Your task to perform on an android device: find photos in the google photos app Image 0: 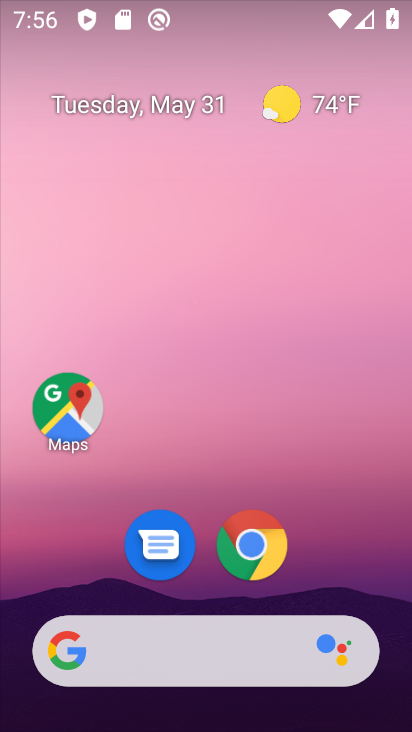
Step 0: drag from (293, 285) to (241, 13)
Your task to perform on an android device: find photos in the google photos app Image 1: 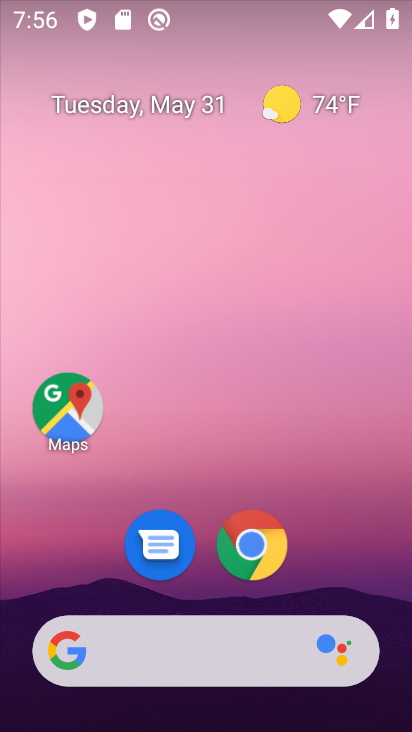
Step 1: drag from (337, 491) to (235, 35)
Your task to perform on an android device: find photos in the google photos app Image 2: 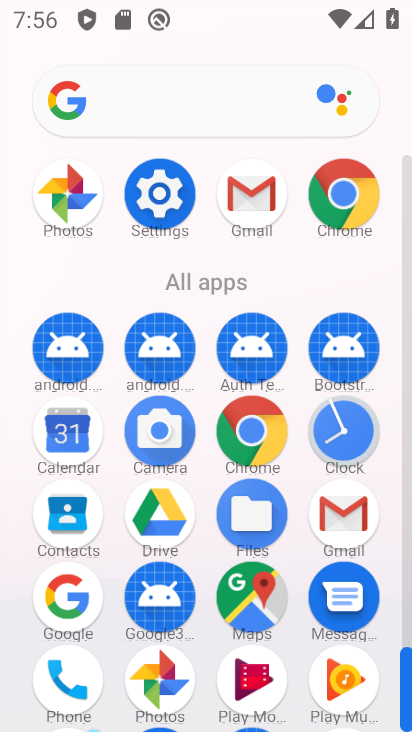
Step 2: drag from (16, 588) to (17, 324)
Your task to perform on an android device: find photos in the google photos app Image 3: 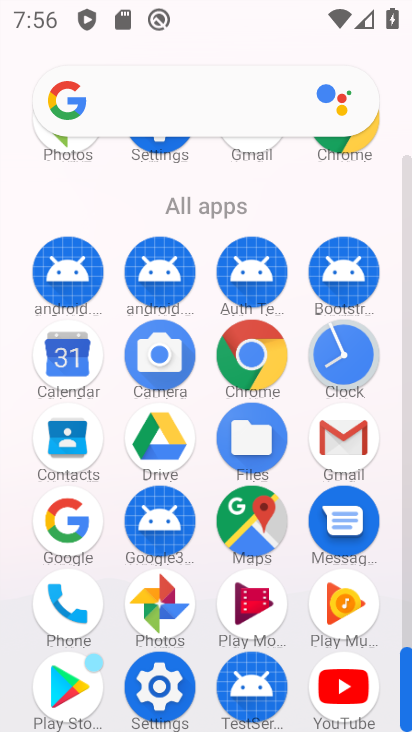
Step 3: click (161, 599)
Your task to perform on an android device: find photos in the google photos app Image 4: 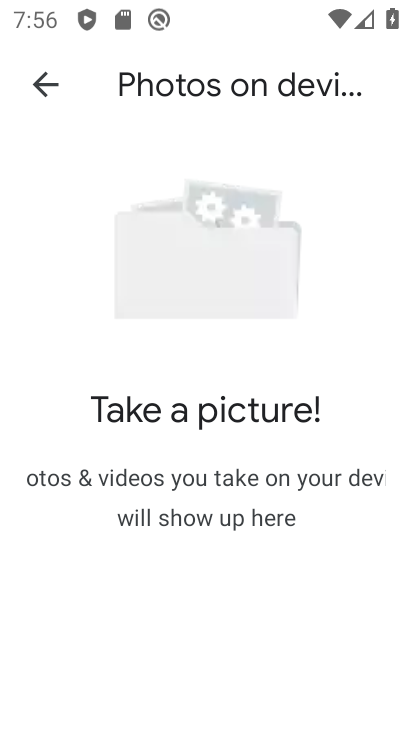
Step 4: click (49, 78)
Your task to perform on an android device: find photos in the google photos app Image 5: 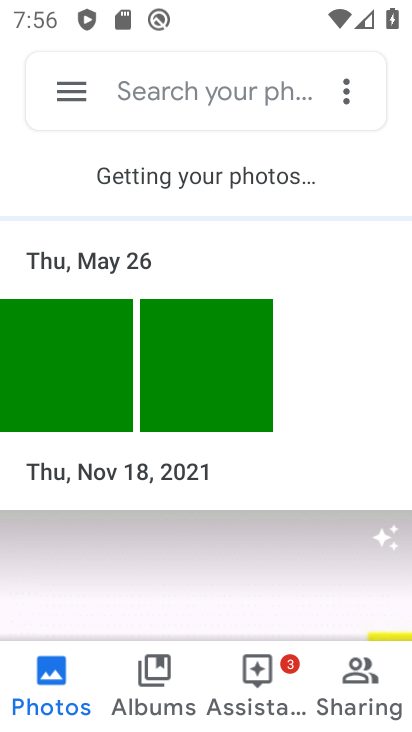
Step 5: task complete